Your task to perform on an android device: open app "Pinterest" Image 0: 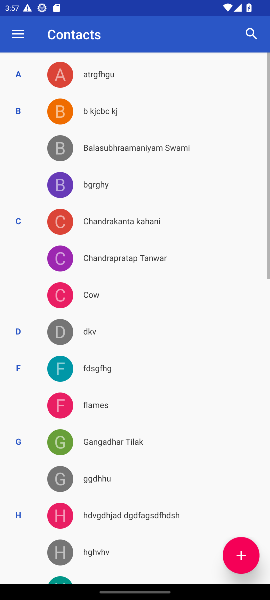
Step 0: press home button
Your task to perform on an android device: open app "Pinterest" Image 1: 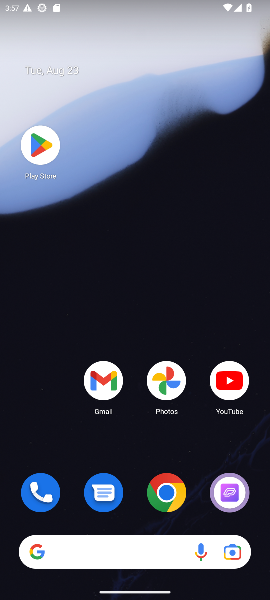
Step 1: drag from (136, 526) to (140, 91)
Your task to perform on an android device: open app "Pinterest" Image 2: 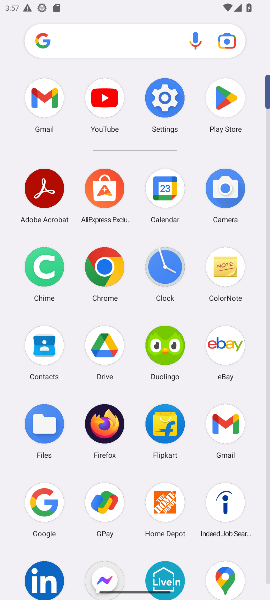
Step 2: click (231, 104)
Your task to perform on an android device: open app "Pinterest" Image 3: 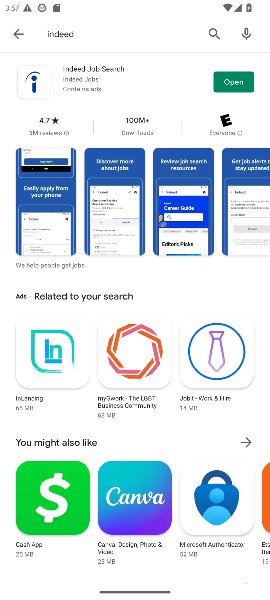
Step 3: click (211, 30)
Your task to perform on an android device: open app "Pinterest" Image 4: 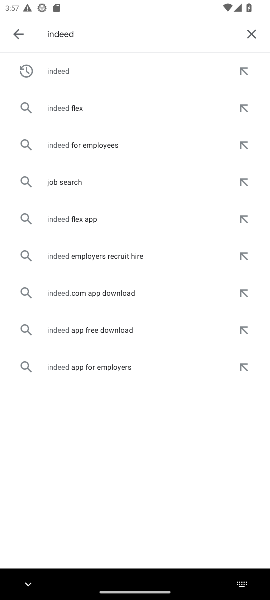
Step 4: click (244, 30)
Your task to perform on an android device: open app "Pinterest" Image 5: 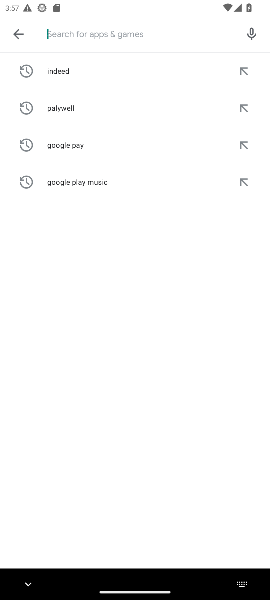
Step 5: type "pinterset"
Your task to perform on an android device: open app "Pinterest" Image 6: 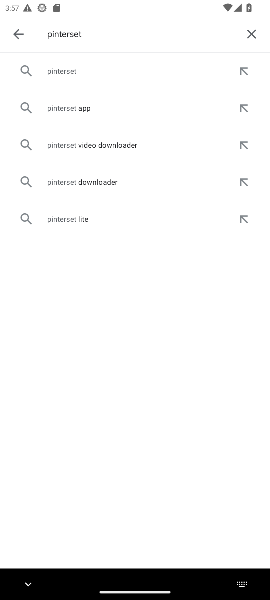
Step 6: click (73, 64)
Your task to perform on an android device: open app "Pinterest" Image 7: 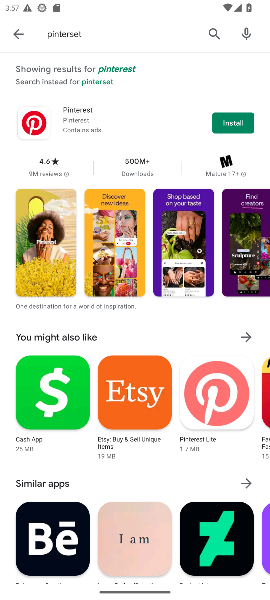
Step 7: click (227, 129)
Your task to perform on an android device: open app "Pinterest" Image 8: 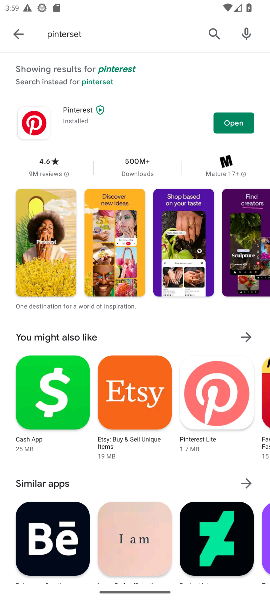
Step 8: click (227, 129)
Your task to perform on an android device: open app "Pinterest" Image 9: 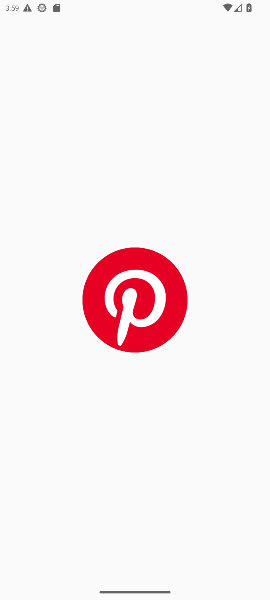
Step 9: task complete